Your task to perform on an android device: Open the Play Movies app and select the watchlist tab. Image 0: 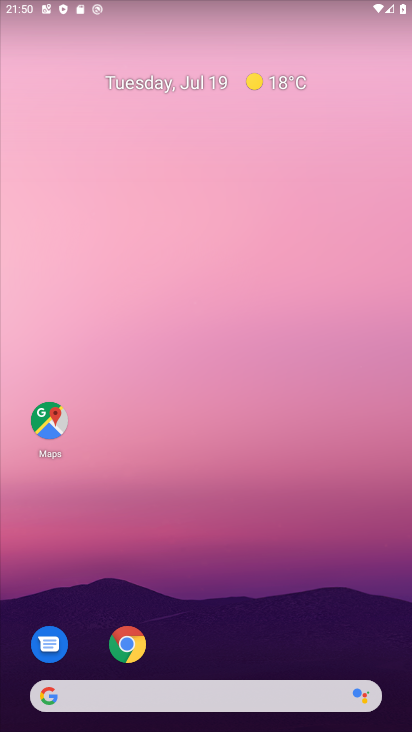
Step 0: drag from (178, 728) to (163, 179)
Your task to perform on an android device: Open the Play Movies app and select the watchlist tab. Image 1: 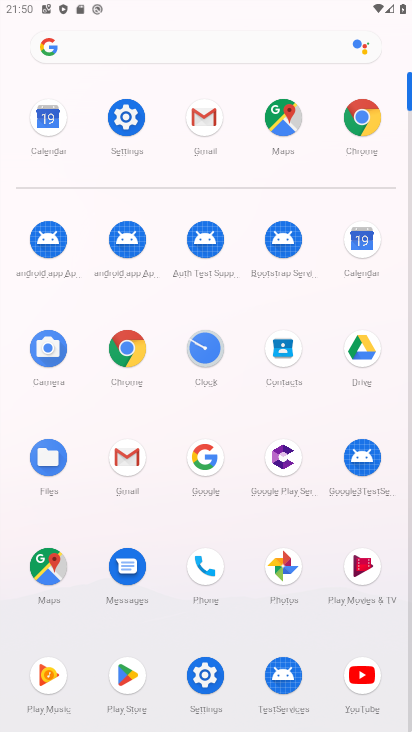
Step 1: click (209, 562)
Your task to perform on an android device: Open the Play Movies app and select the watchlist tab. Image 2: 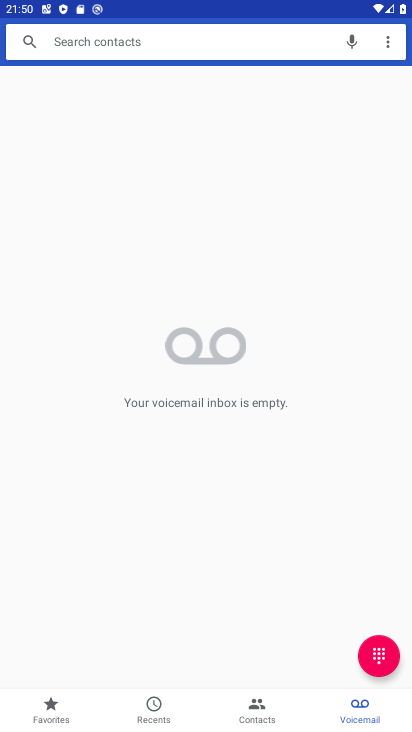
Step 2: task complete